Your task to perform on an android device: turn notification dots on Image 0: 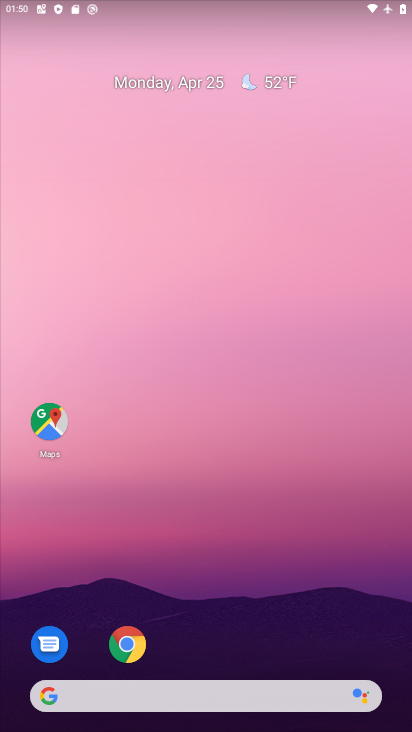
Step 0: drag from (335, 617) to (346, 83)
Your task to perform on an android device: turn notification dots on Image 1: 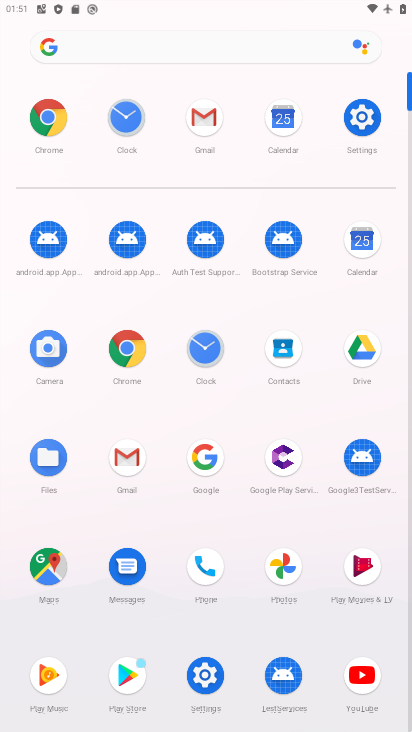
Step 1: click (193, 673)
Your task to perform on an android device: turn notification dots on Image 2: 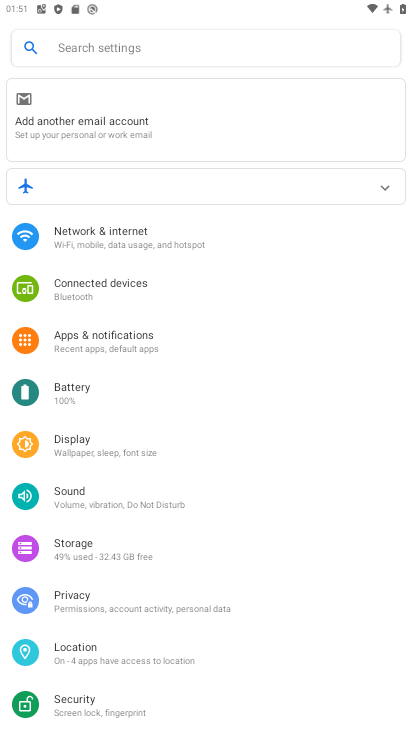
Step 2: click (173, 351)
Your task to perform on an android device: turn notification dots on Image 3: 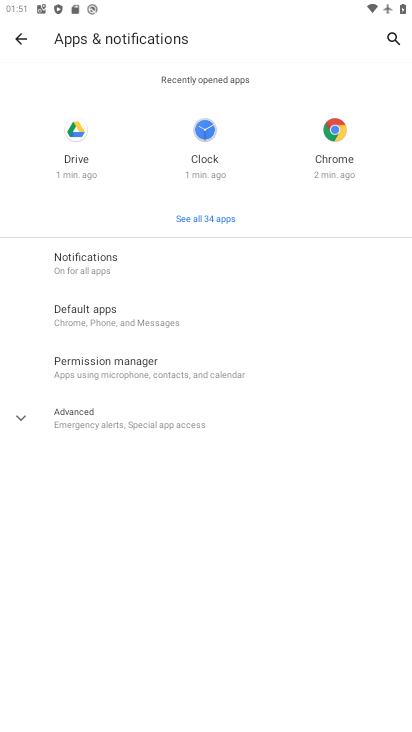
Step 3: click (135, 425)
Your task to perform on an android device: turn notification dots on Image 4: 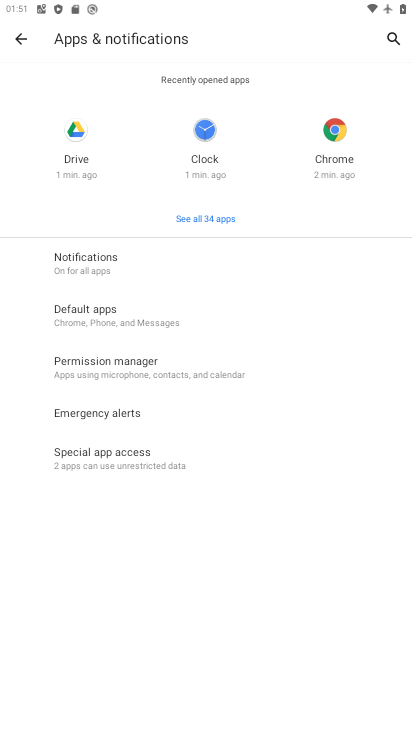
Step 4: click (114, 268)
Your task to perform on an android device: turn notification dots on Image 5: 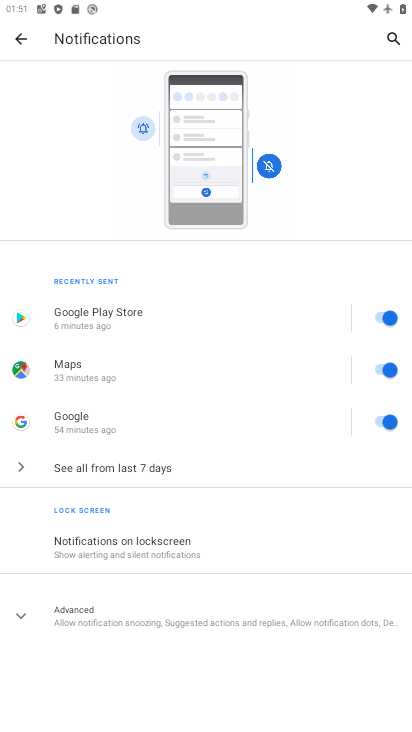
Step 5: click (150, 612)
Your task to perform on an android device: turn notification dots on Image 6: 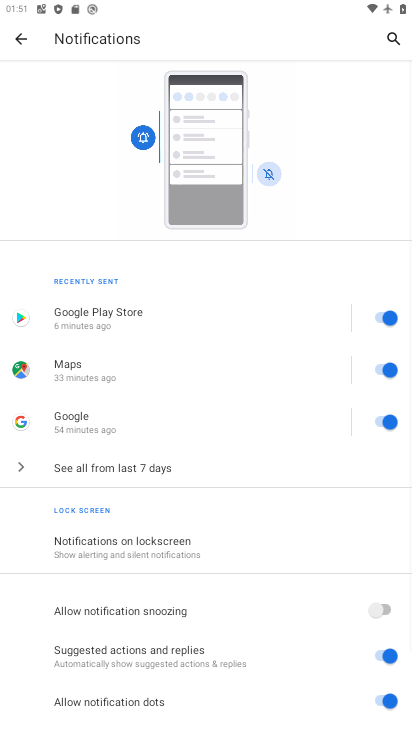
Step 6: task complete